Your task to perform on an android device: change the clock display to show seconds Image 0: 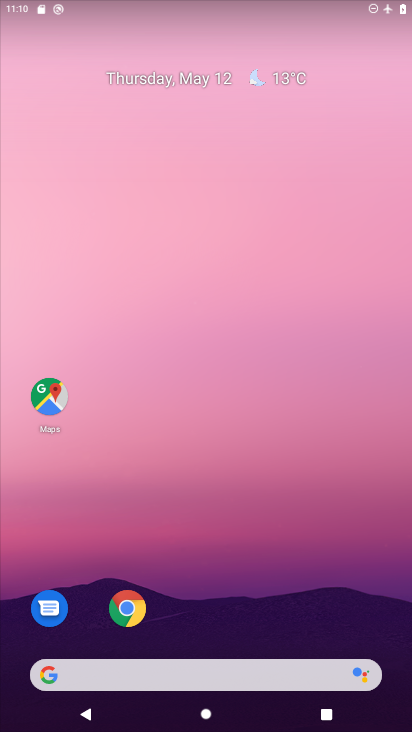
Step 0: drag from (250, 550) to (238, 118)
Your task to perform on an android device: change the clock display to show seconds Image 1: 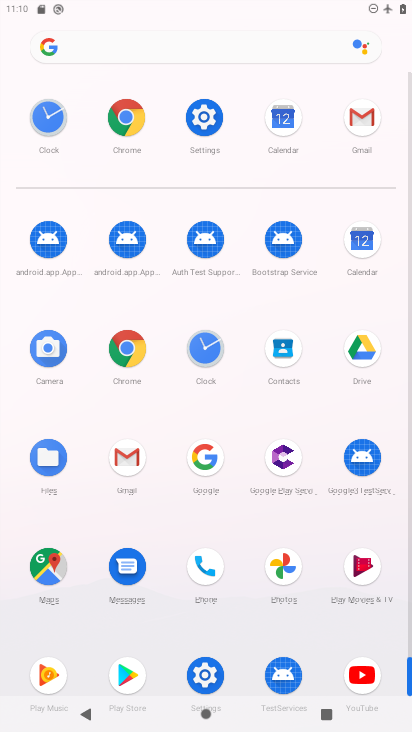
Step 1: click (216, 349)
Your task to perform on an android device: change the clock display to show seconds Image 2: 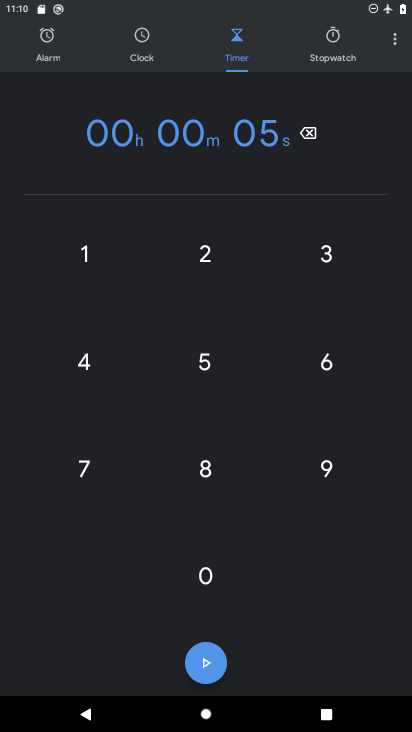
Step 2: click (392, 42)
Your task to perform on an android device: change the clock display to show seconds Image 3: 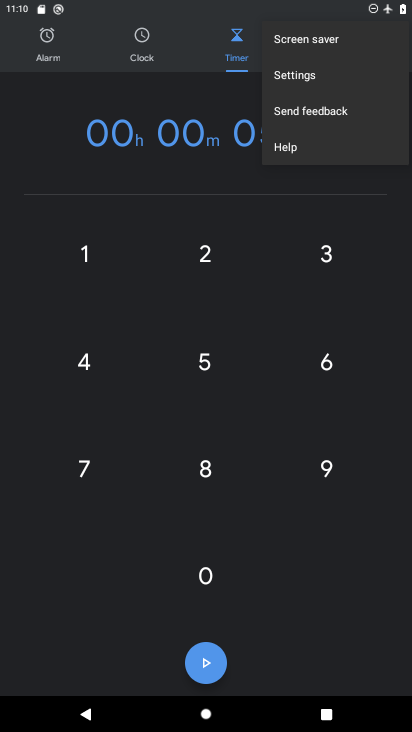
Step 3: click (317, 75)
Your task to perform on an android device: change the clock display to show seconds Image 4: 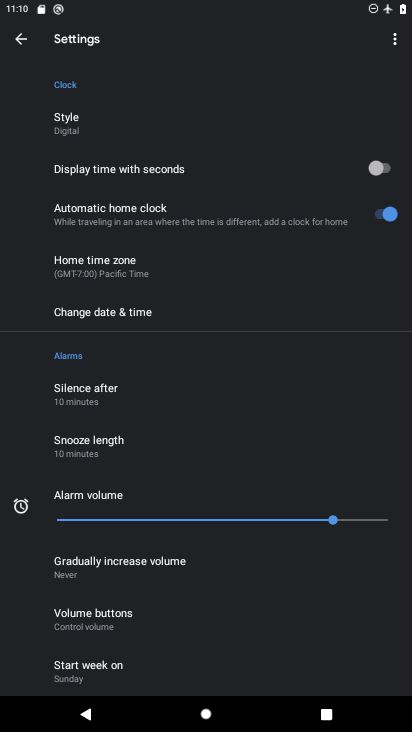
Step 4: click (381, 165)
Your task to perform on an android device: change the clock display to show seconds Image 5: 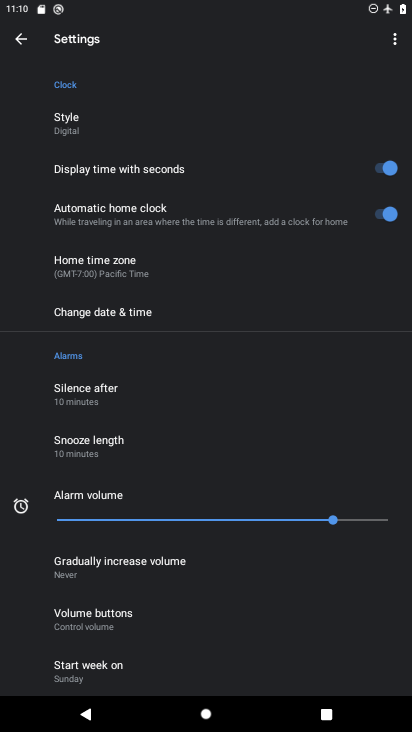
Step 5: task complete